Your task to perform on an android device: open chrome privacy settings Image 0: 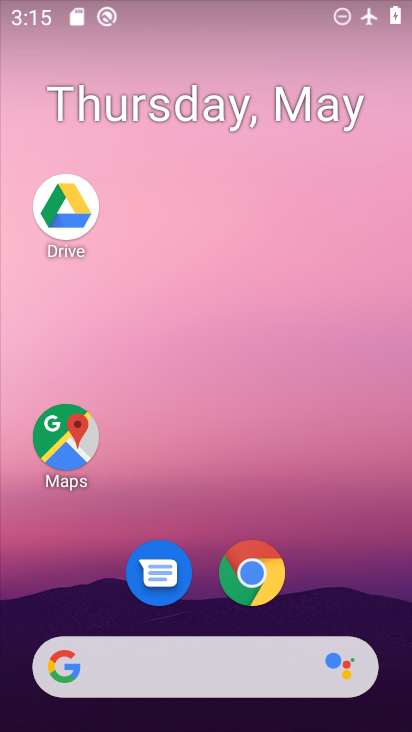
Step 0: click (265, 577)
Your task to perform on an android device: open chrome privacy settings Image 1: 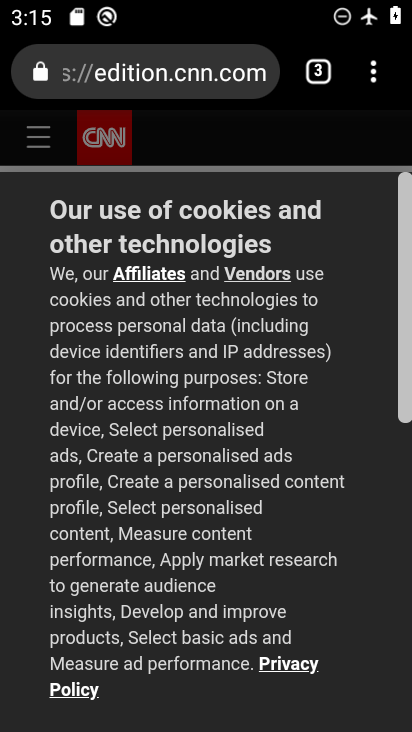
Step 1: click (370, 73)
Your task to perform on an android device: open chrome privacy settings Image 2: 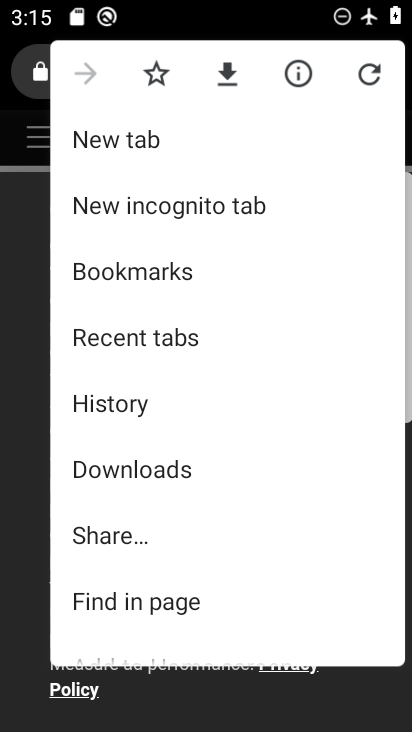
Step 2: drag from (177, 540) to (168, 229)
Your task to perform on an android device: open chrome privacy settings Image 3: 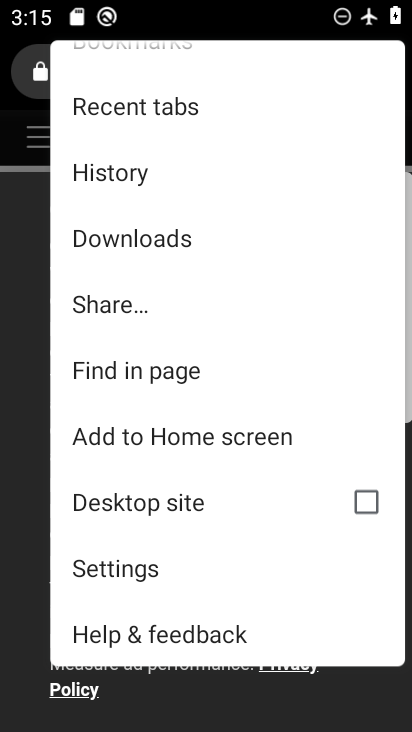
Step 3: click (130, 572)
Your task to perform on an android device: open chrome privacy settings Image 4: 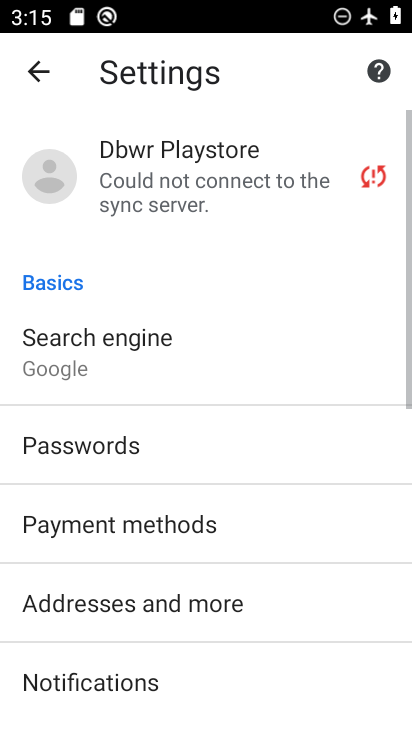
Step 4: drag from (235, 565) to (220, 224)
Your task to perform on an android device: open chrome privacy settings Image 5: 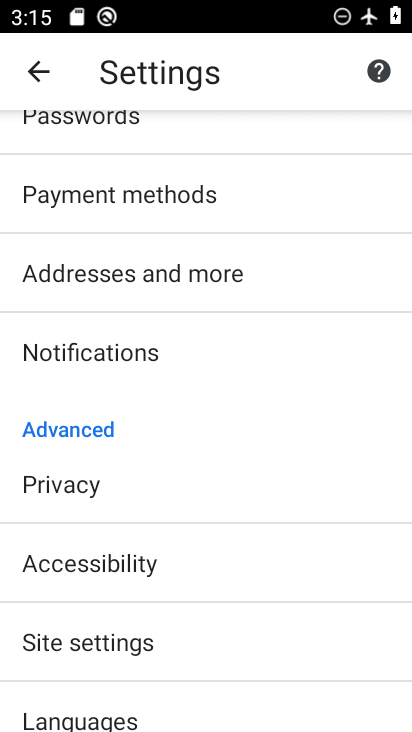
Step 5: click (71, 479)
Your task to perform on an android device: open chrome privacy settings Image 6: 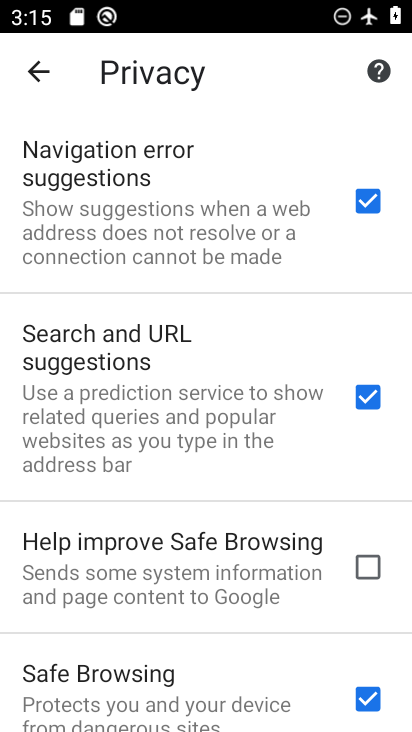
Step 6: task complete